Your task to perform on an android device: Open Youtube and go to the subscriptions tab Image 0: 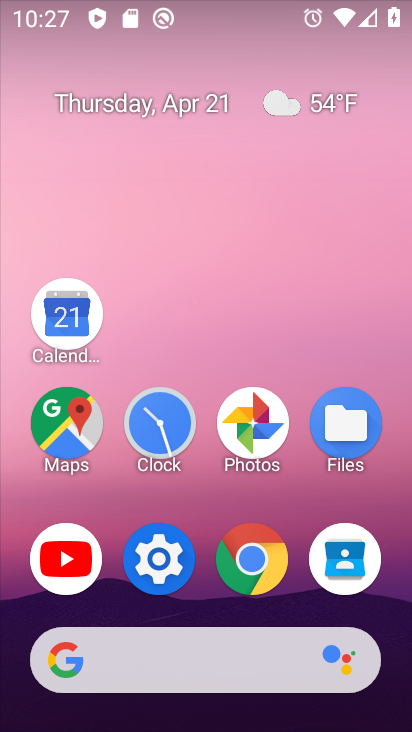
Step 0: click (61, 557)
Your task to perform on an android device: Open Youtube and go to the subscriptions tab Image 1: 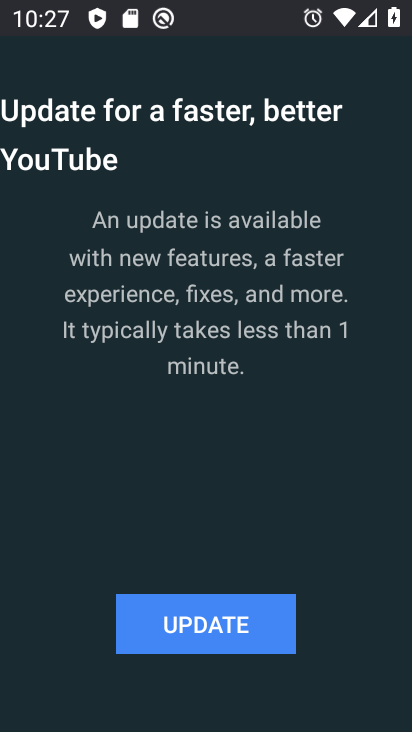
Step 1: click (198, 628)
Your task to perform on an android device: Open Youtube and go to the subscriptions tab Image 2: 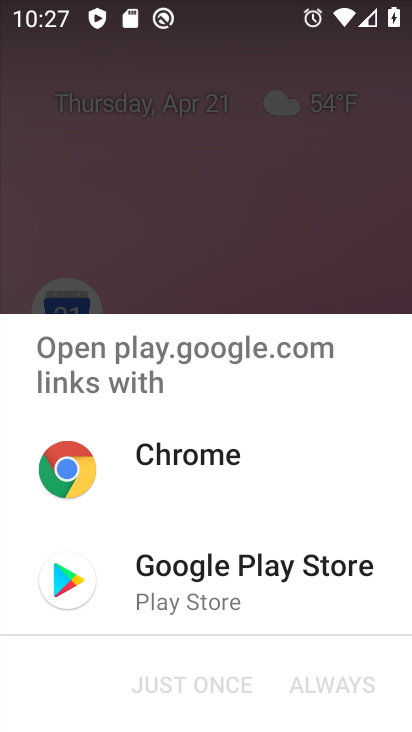
Step 2: click (133, 570)
Your task to perform on an android device: Open Youtube and go to the subscriptions tab Image 3: 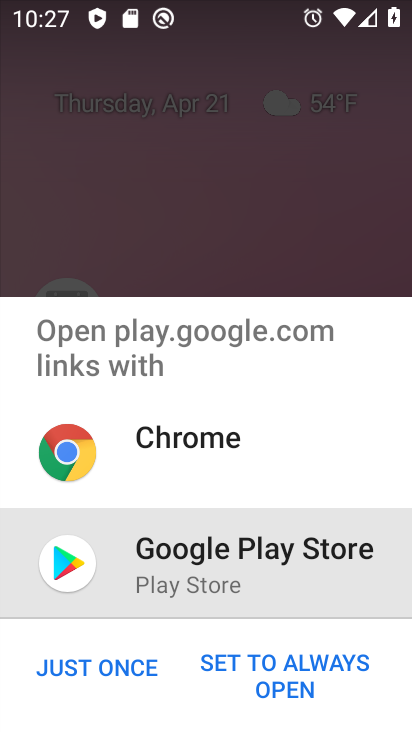
Step 3: click (113, 667)
Your task to perform on an android device: Open Youtube and go to the subscriptions tab Image 4: 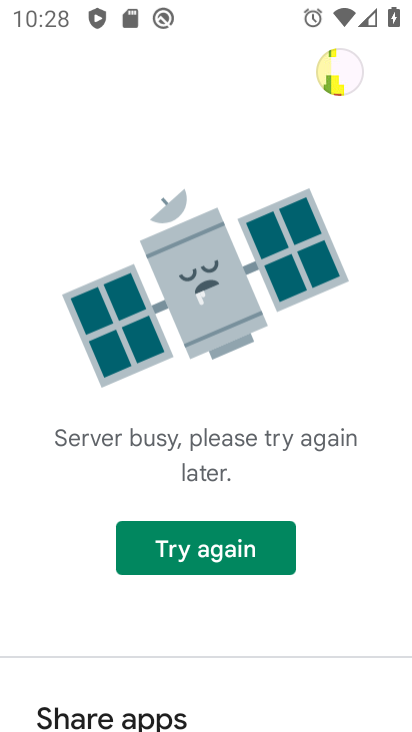
Step 4: click (178, 540)
Your task to perform on an android device: Open Youtube and go to the subscriptions tab Image 5: 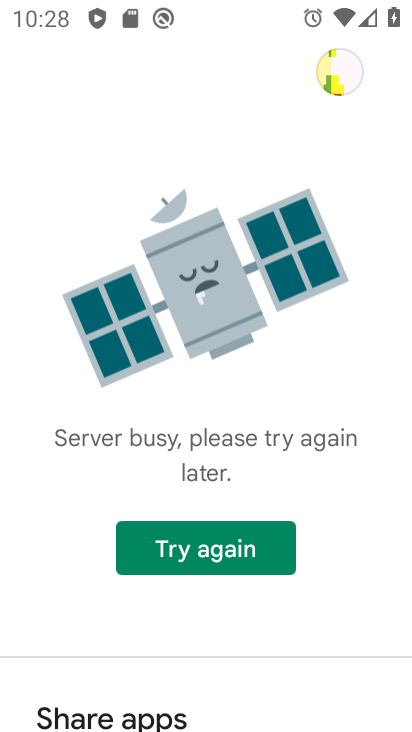
Step 5: click (217, 553)
Your task to perform on an android device: Open Youtube and go to the subscriptions tab Image 6: 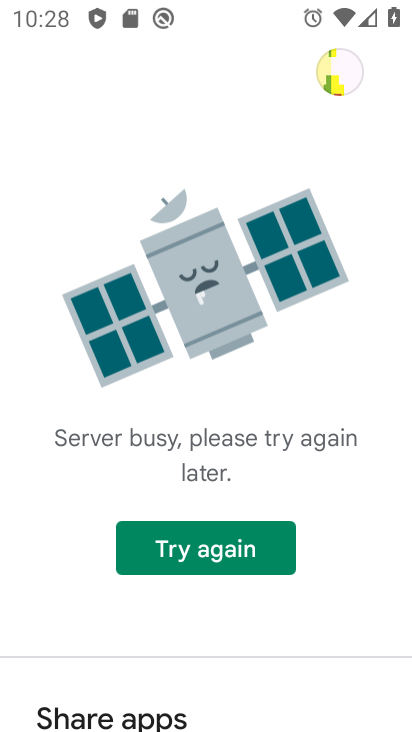
Step 6: click (217, 553)
Your task to perform on an android device: Open Youtube and go to the subscriptions tab Image 7: 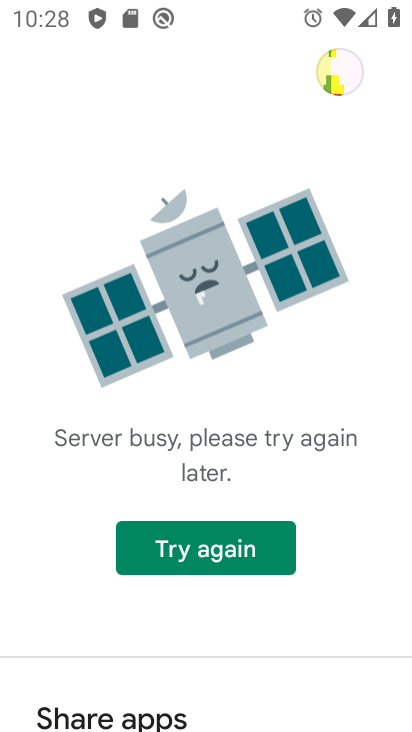
Step 7: task complete